Your task to perform on an android device: Open accessibility settings Image 0: 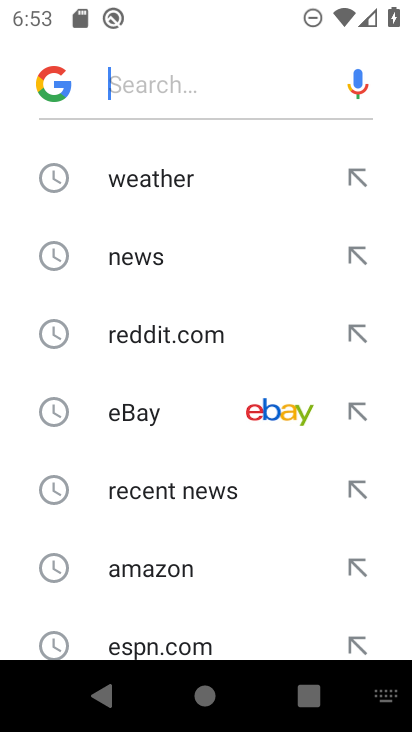
Step 0: press home button
Your task to perform on an android device: Open accessibility settings Image 1: 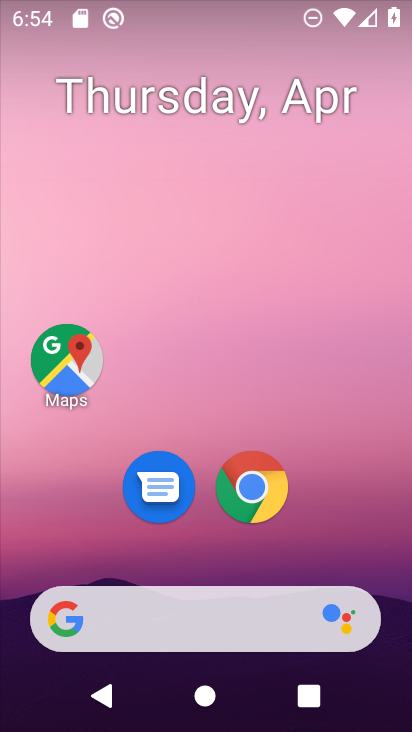
Step 1: drag from (329, 519) to (244, 104)
Your task to perform on an android device: Open accessibility settings Image 2: 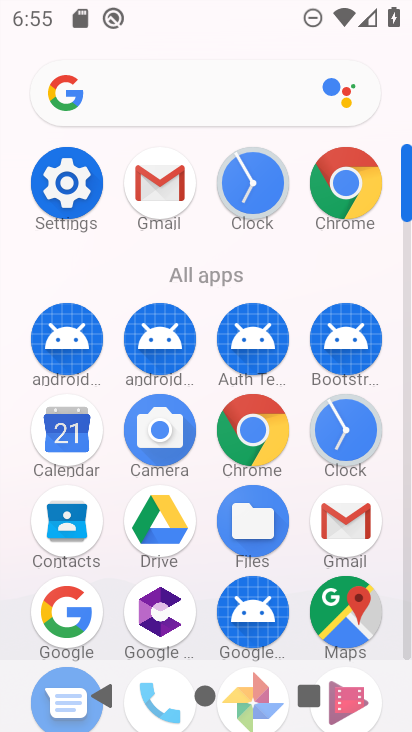
Step 2: click (85, 188)
Your task to perform on an android device: Open accessibility settings Image 3: 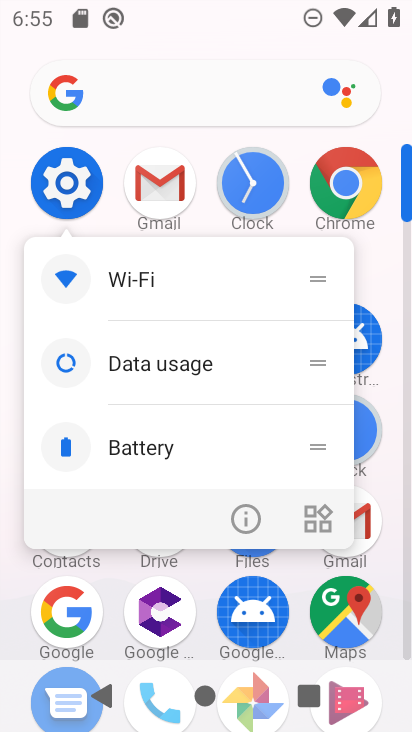
Step 3: click (83, 182)
Your task to perform on an android device: Open accessibility settings Image 4: 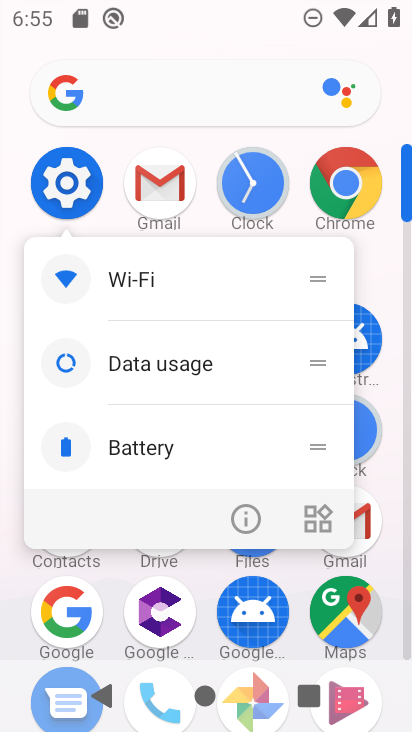
Step 4: click (83, 192)
Your task to perform on an android device: Open accessibility settings Image 5: 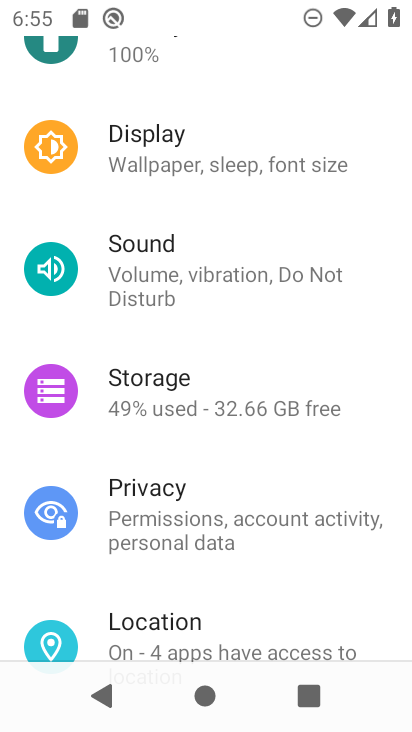
Step 5: drag from (254, 630) to (185, 290)
Your task to perform on an android device: Open accessibility settings Image 6: 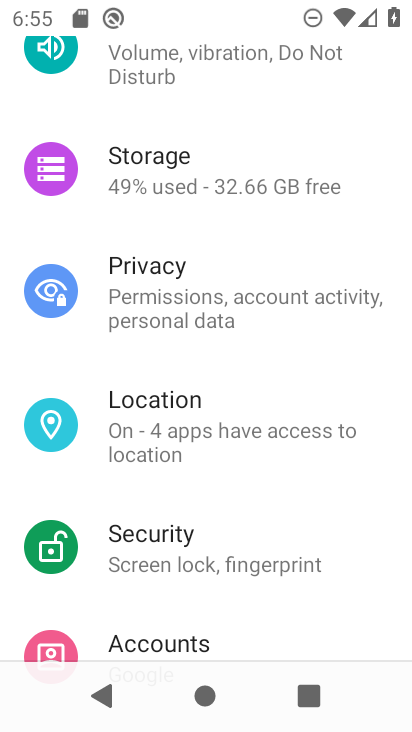
Step 6: drag from (272, 514) to (254, 197)
Your task to perform on an android device: Open accessibility settings Image 7: 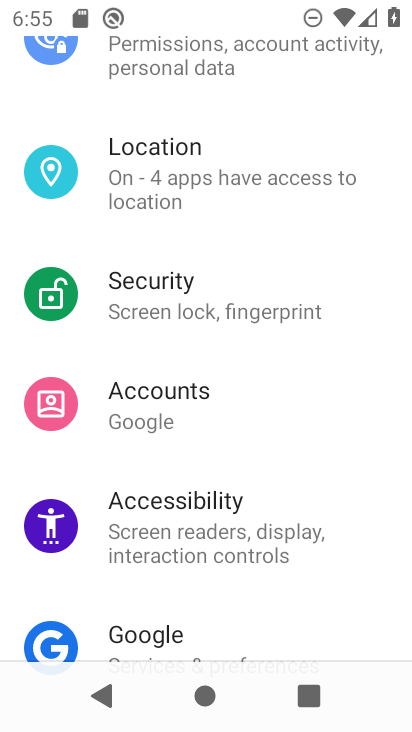
Step 7: drag from (315, 545) to (308, 221)
Your task to perform on an android device: Open accessibility settings Image 8: 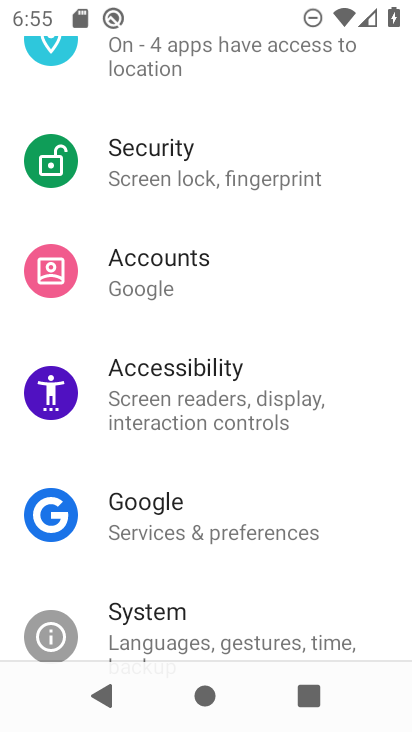
Step 8: click (146, 412)
Your task to perform on an android device: Open accessibility settings Image 9: 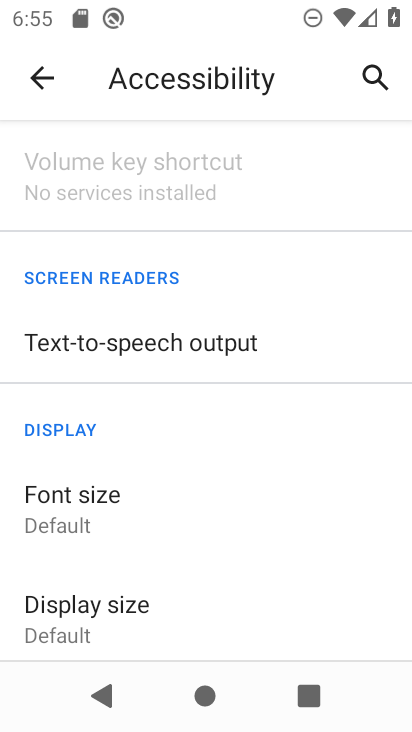
Step 9: task complete